Your task to perform on an android device: Open calendar and show me the first week of next month Image 0: 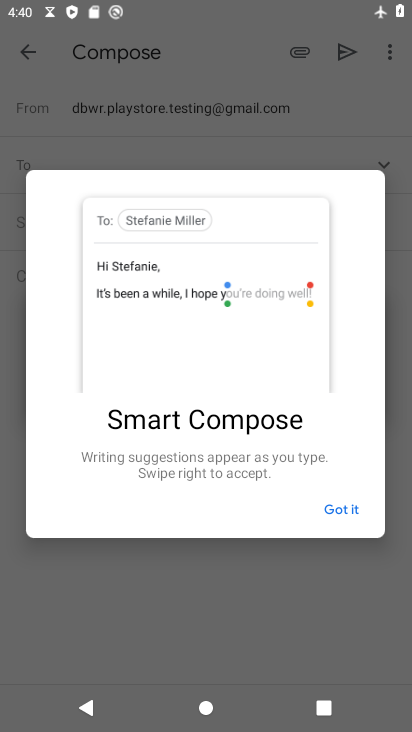
Step 0: press home button
Your task to perform on an android device: Open calendar and show me the first week of next month Image 1: 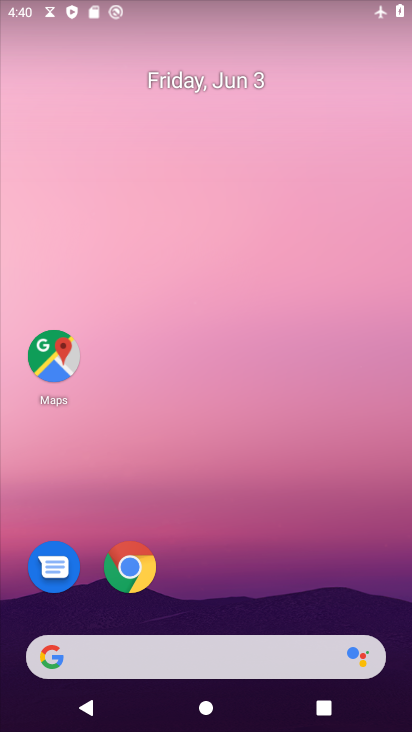
Step 1: drag from (233, 612) to (231, 7)
Your task to perform on an android device: Open calendar and show me the first week of next month Image 2: 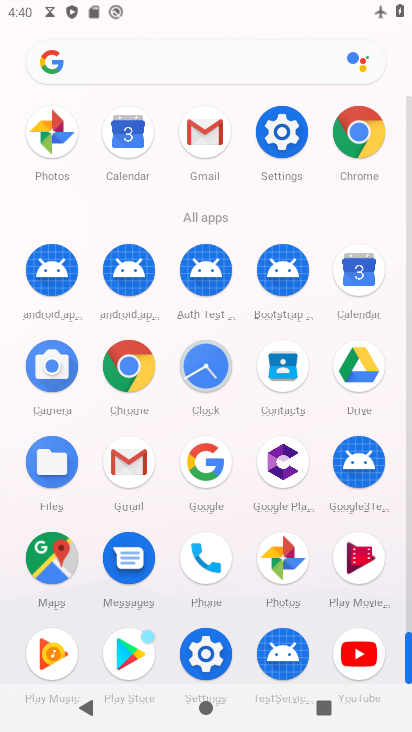
Step 2: click (123, 120)
Your task to perform on an android device: Open calendar and show me the first week of next month Image 3: 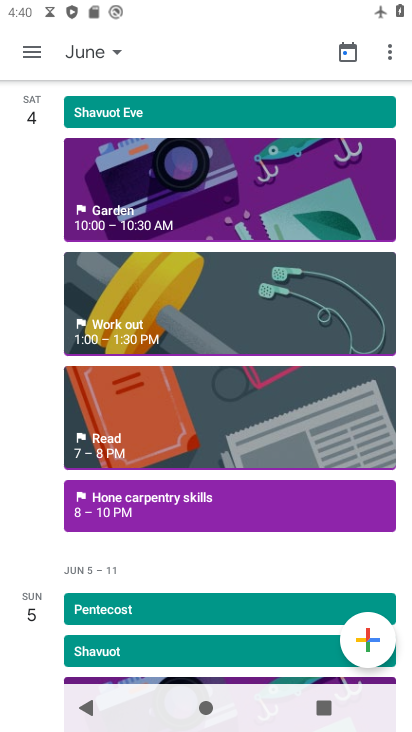
Step 3: click (113, 40)
Your task to perform on an android device: Open calendar and show me the first week of next month Image 4: 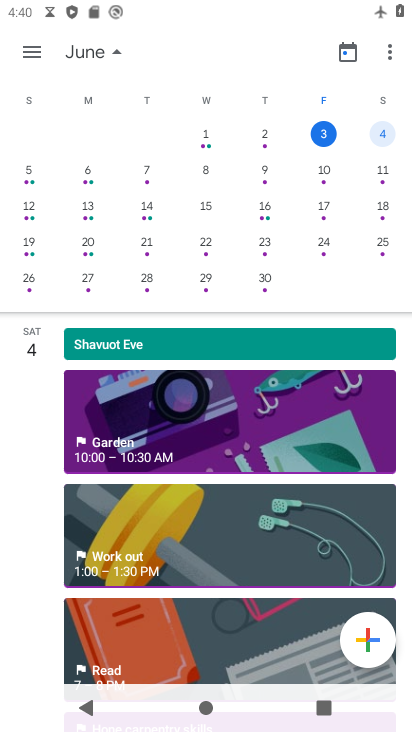
Step 4: drag from (373, 203) to (4, 189)
Your task to perform on an android device: Open calendar and show me the first week of next month Image 5: 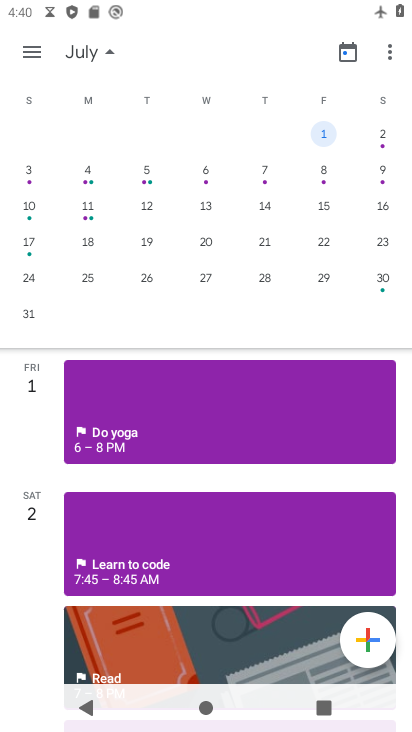
Step 5: click (82, 165)
Your task to perform on an android device: Open calendar and show me the first week of next month Image 6: 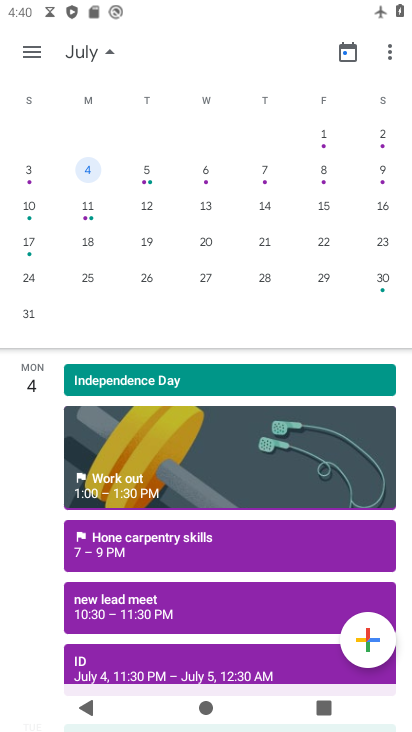
Step 6: click (40, 50)
Your task to perform on an android device: Open calendar and show me the first week of next month Image 7: 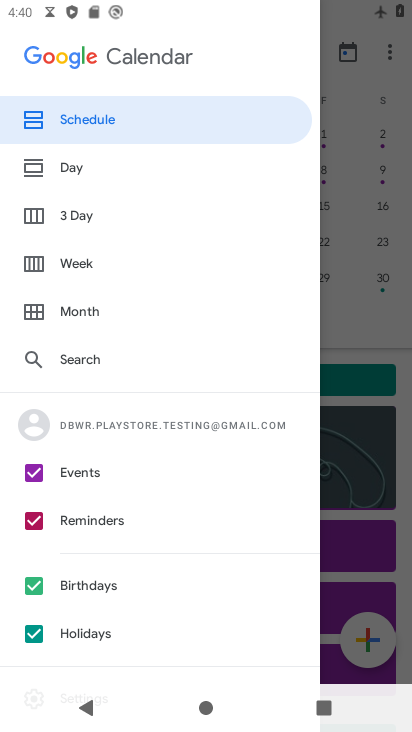
Step 7: click (78, 257)
Your task to perform on an android device: Open calendar and show me the first week of next month Image 8: 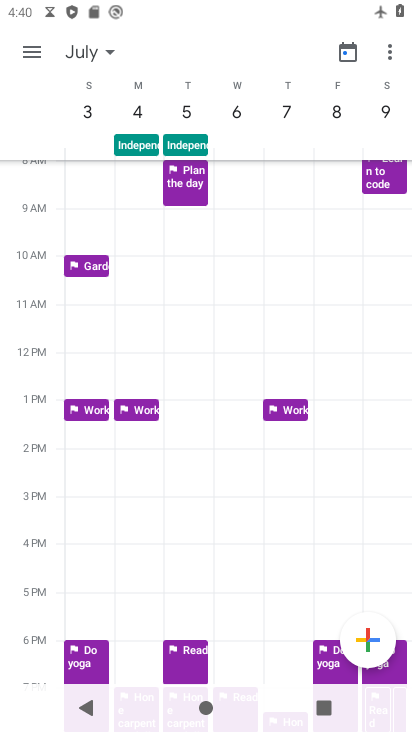
Step 8: task complete